Your task to perform on an android device: turn on the 24-hour format for clock Image 0: 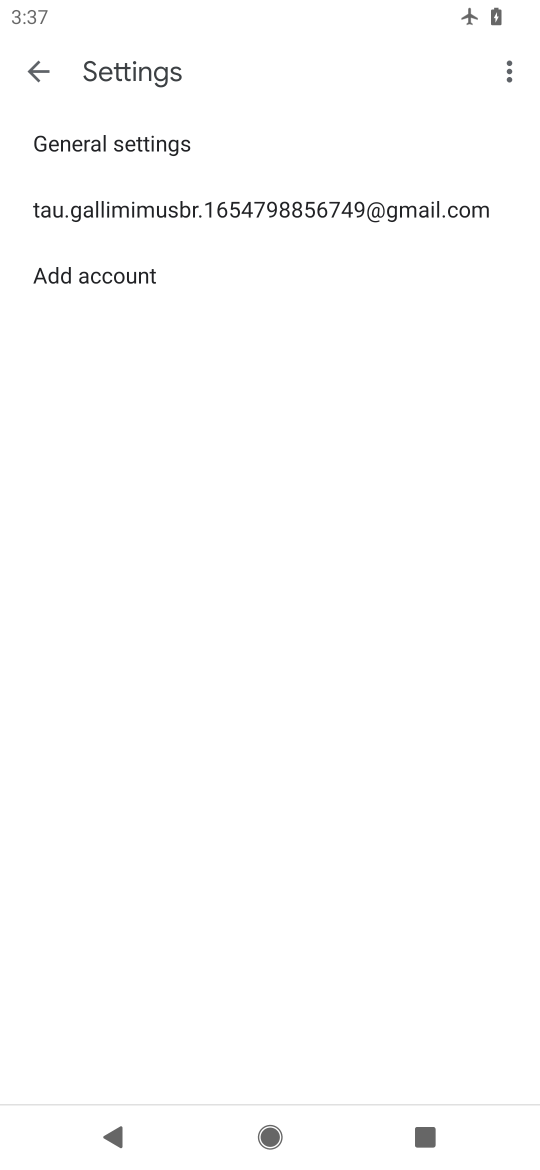
Step 0: press back button
Your task to perform on an android device: turn on the 24-hour format for clock Image 1: 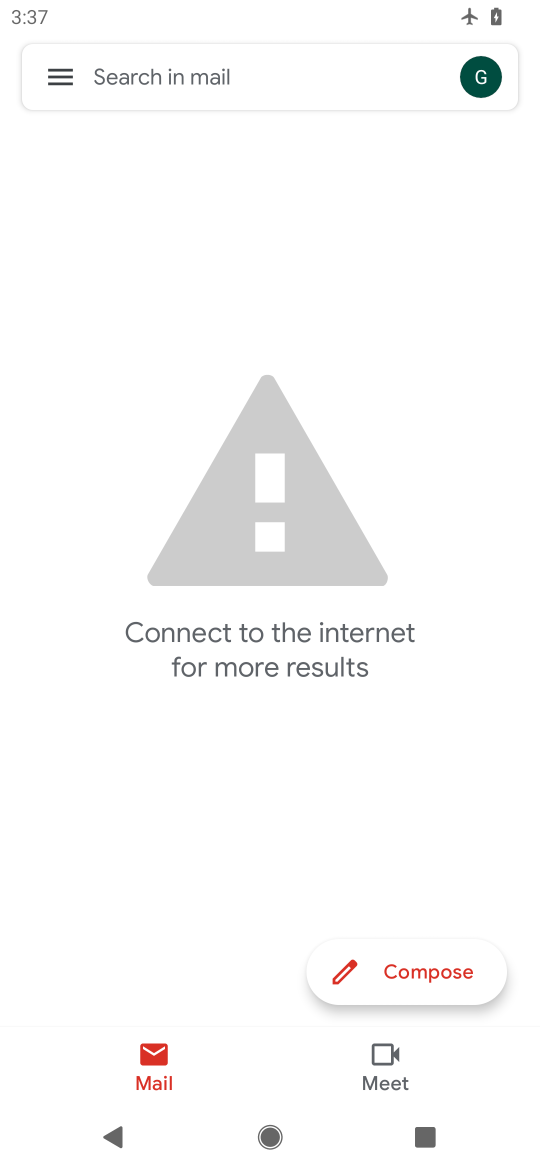
Step 1: press back button
Your task to perform on an android device: turn on the 24-hour format for clock Image 2: 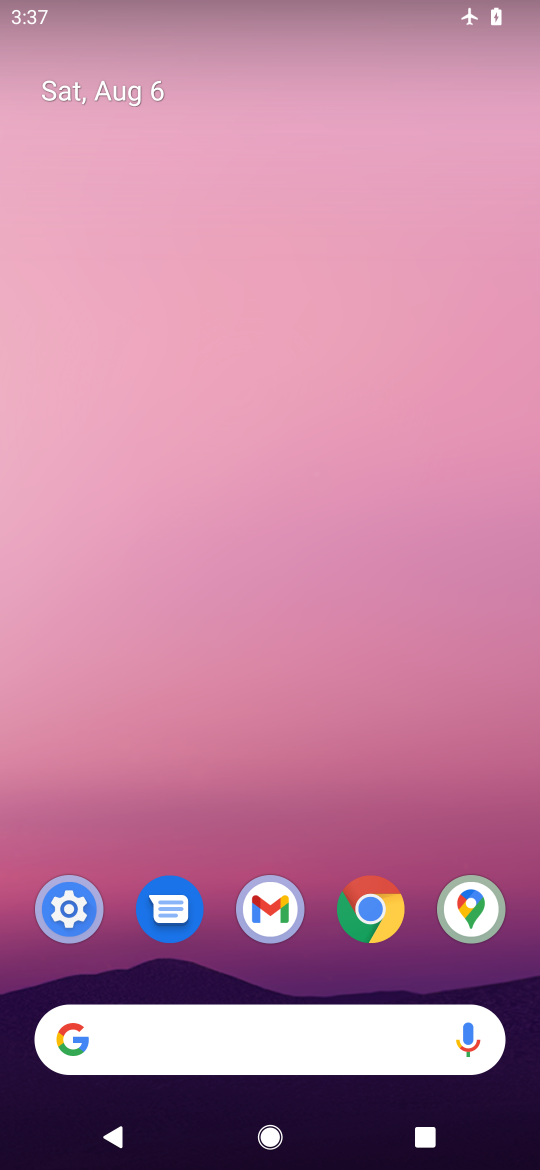
Step 2: drag from (231, 989) to (337, 155)
Your task to perform on an android device: turn on the 24-hour format for clock Image 3: 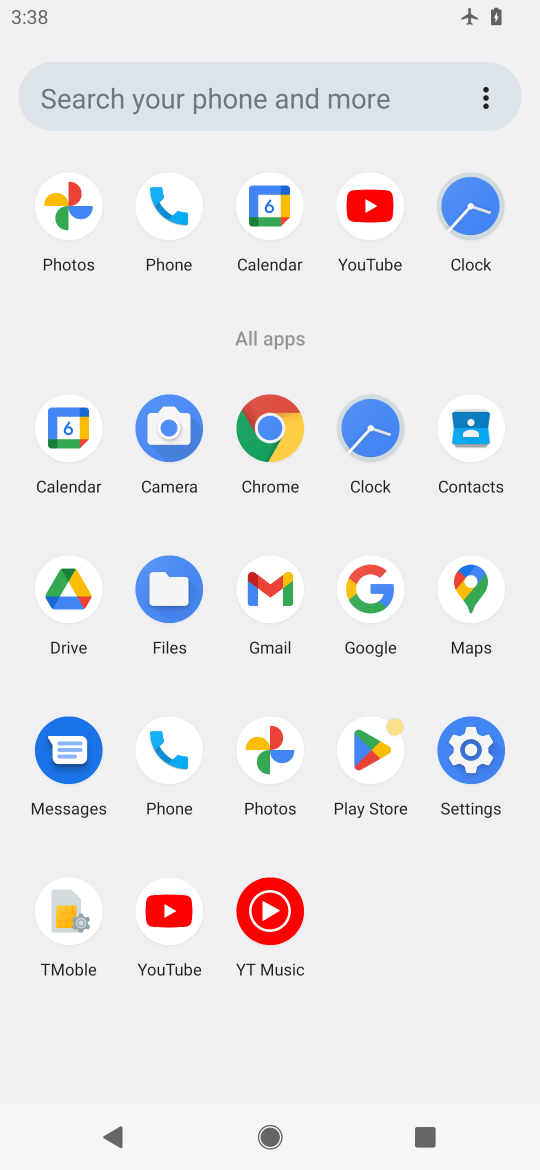
Step 3: click (388, 413)
Your task to perform on an android device: turn on the 24-hour format for clock Image 4: 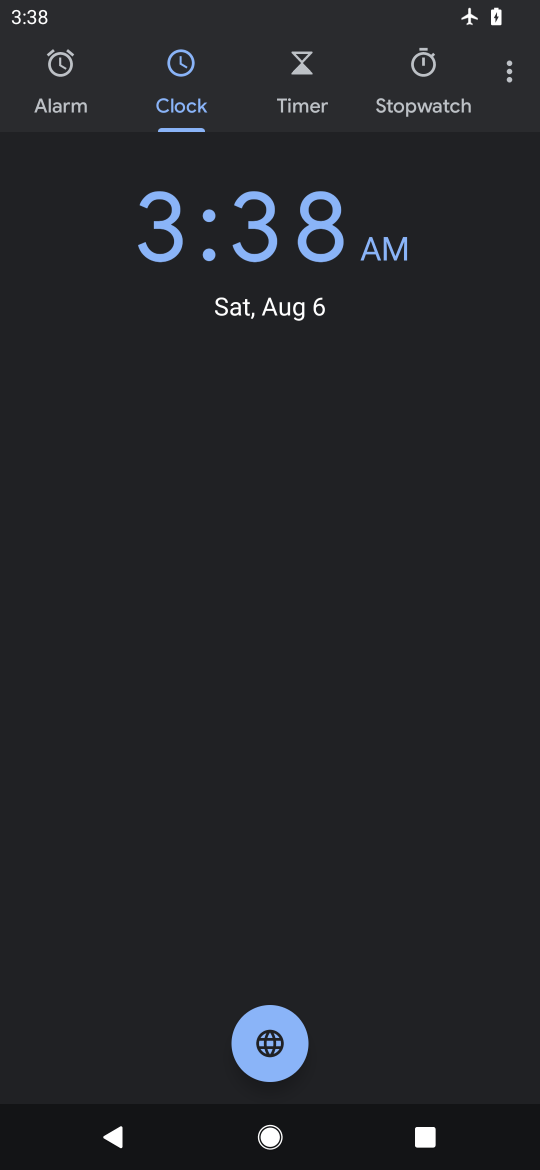
Step 4: click (508, 78)
Your task to perform on an android device: turn on the 24-hour format for clock Image 5: 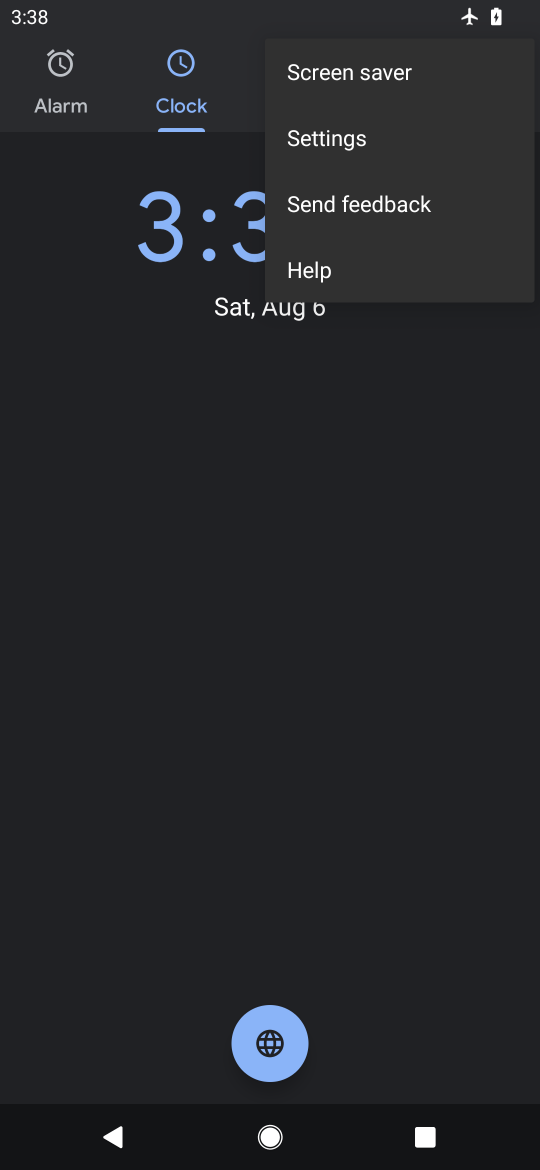
Step 5: click (364, 137)
Your task to perform on an android device: turn on the 24-hour format for clock Image 6: 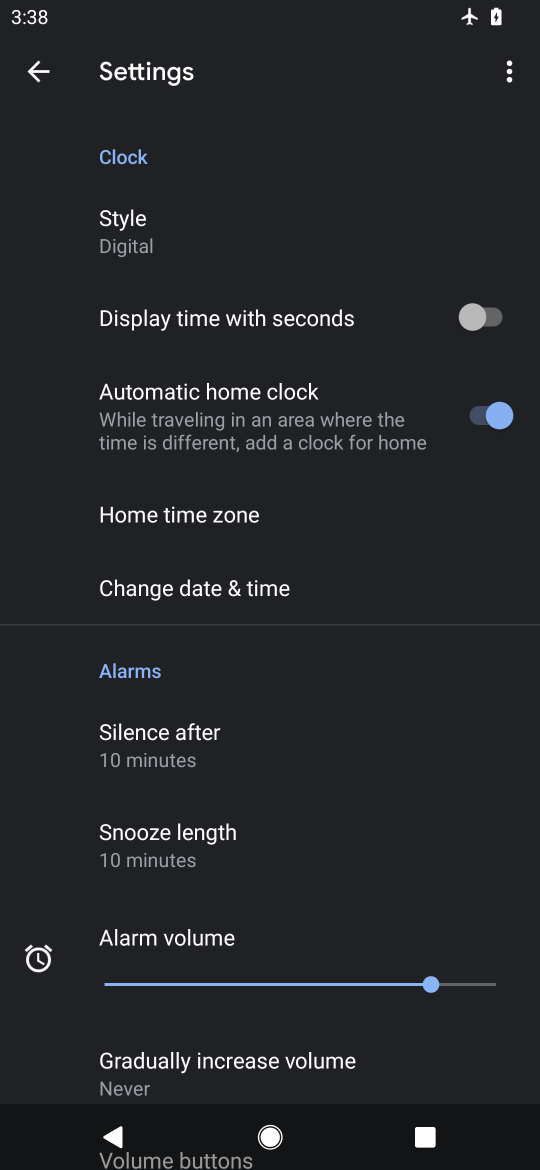
Step 6: click (220, 577)
Your task to perform on an android device: turn on the 24-hour format for clock Image 7: 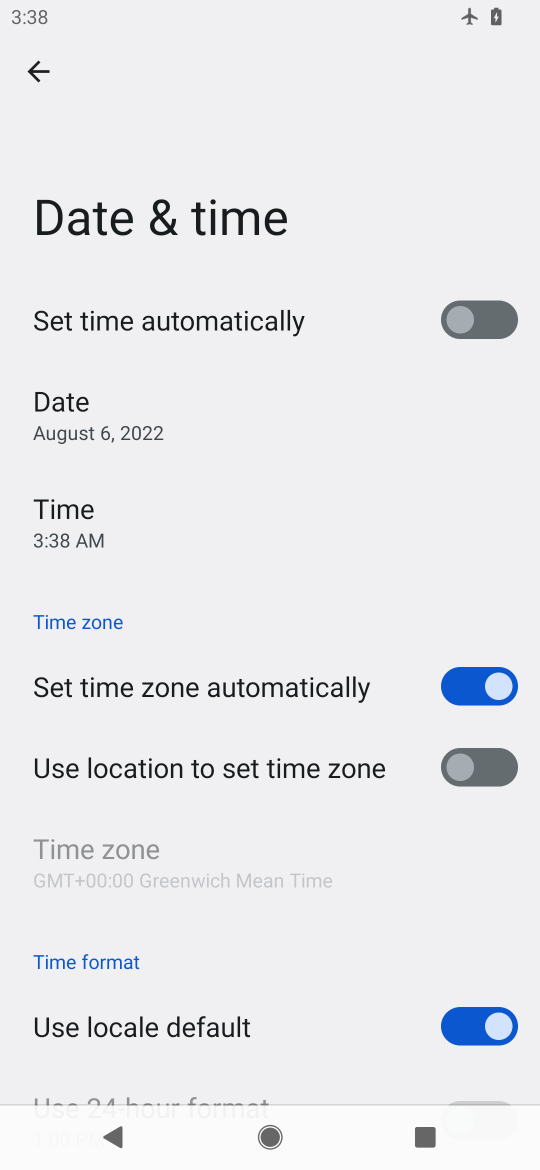
Step 7: drag from (178, 1037) to (384, 281)
Your task to perform on an android device: turn on the 24-hour format for clock Image 8: 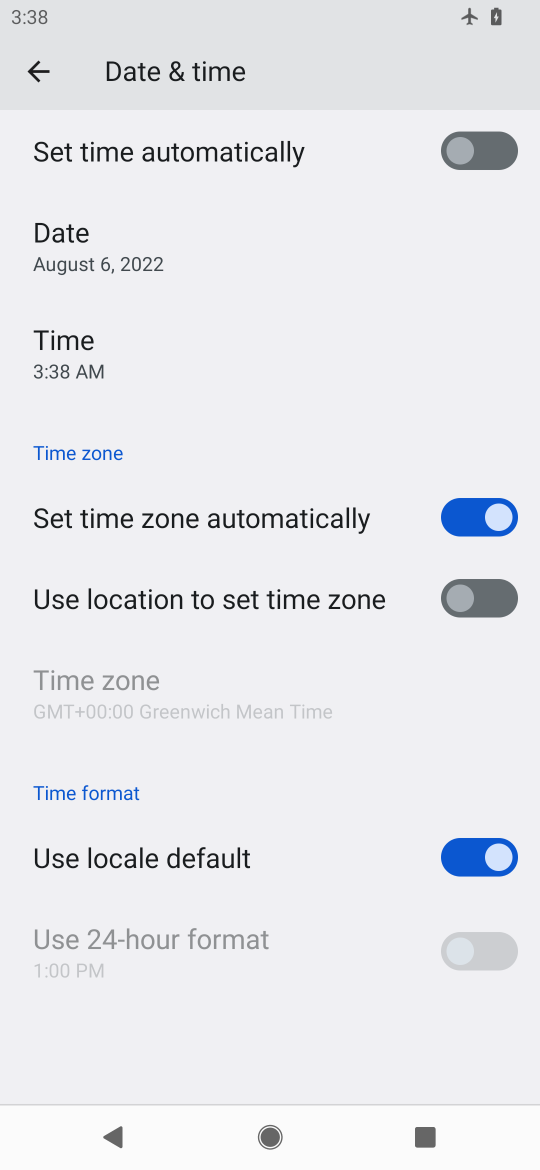
Step 8: click (473, 870)
Your task to perform on an android device: turn on the 24-hour format for clock Image 9: 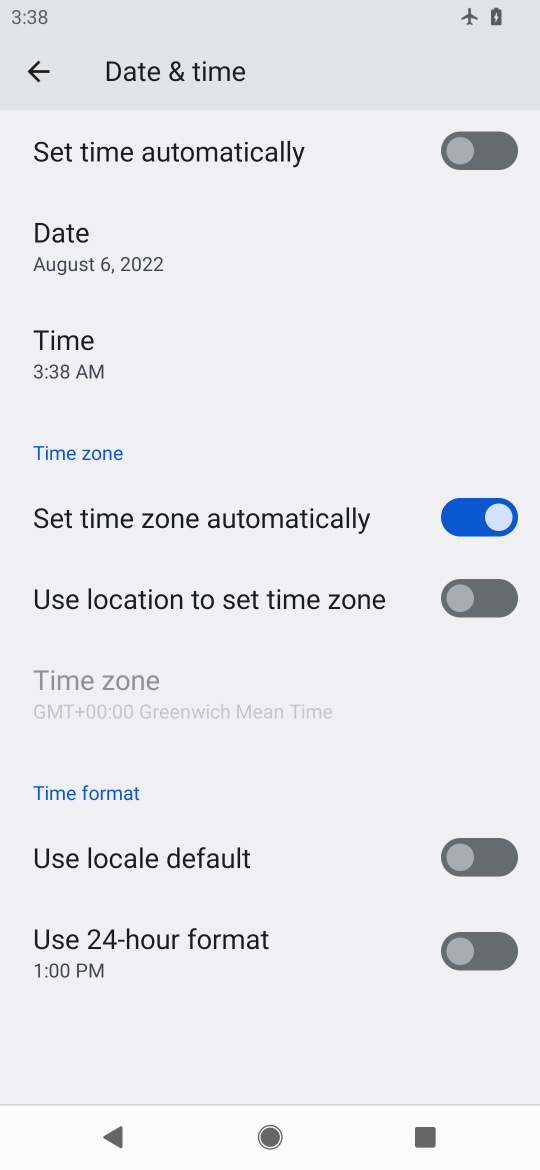
Step 9: click (456, 962)
Your task to perform on an android device: turn on the 24-hour format for clock Image 10: 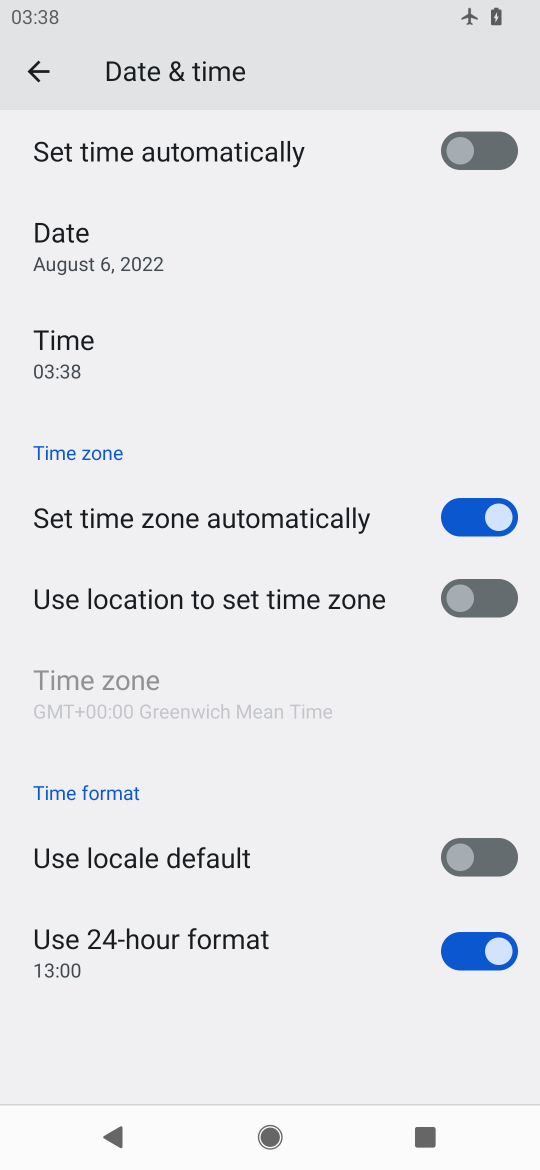
Step 10: task complete